Your task to perform on an android device: change the clock display to show seconds Image 0: 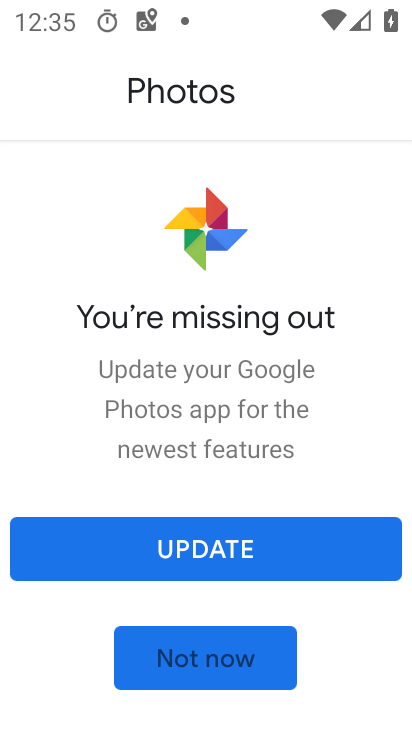
Step 0: press home button
Your task to perform on an android device: change the clock display to show seconds Image 1: 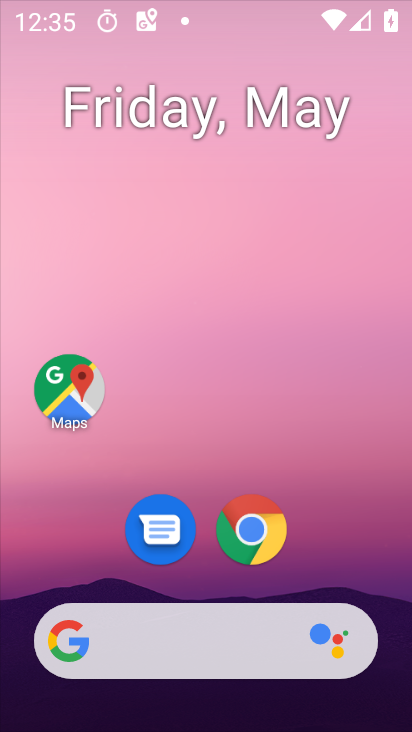
Step 1: drag from (234, 432) to (266, 139)
Your task to perform on an android device: change the clock display to show seconds Image 2: 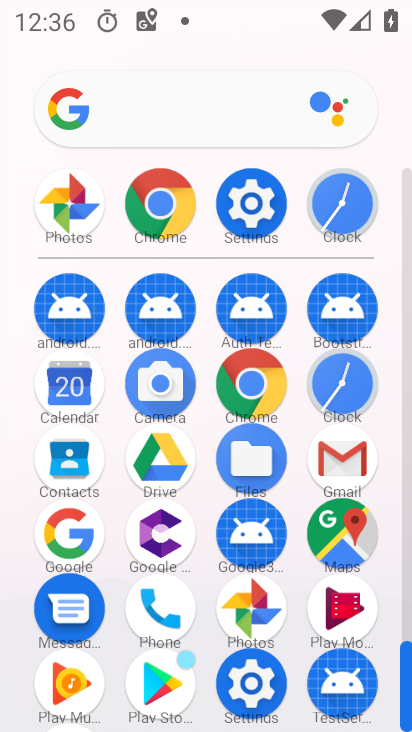
Step 2: click (338, 400)
Your task to perform on an android device: change the clock display to show seconds Image 3: 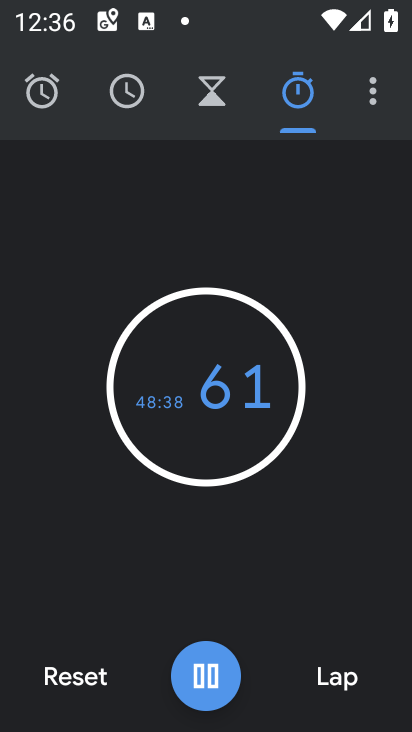
Step 3: click (373, 111)
Your task to perform on an android device: change the clock display to show seconds Image 4: 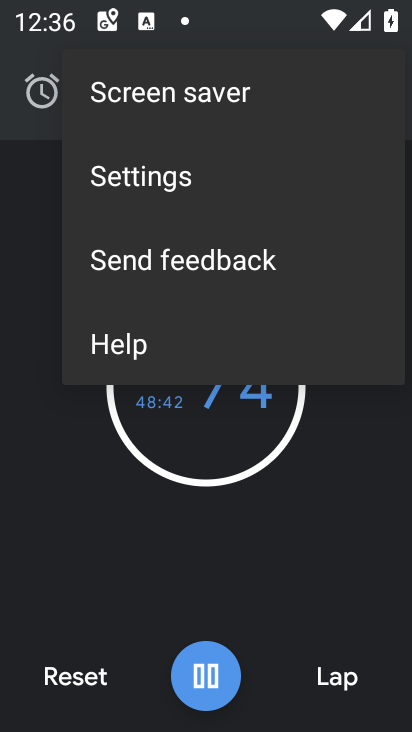
Step 4: click (180, 191)
Your task to perform on an android device: change the clock display to show seconds Image 5: 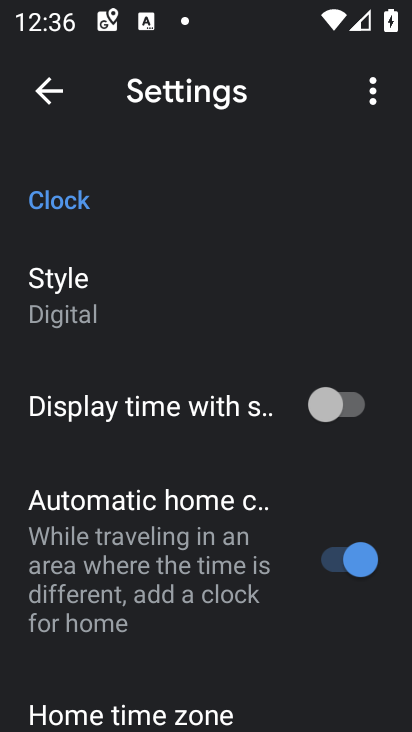
Step 5: click (217, 408)
Your task to perform on an android device: change the clock display to show seconds Image 6: 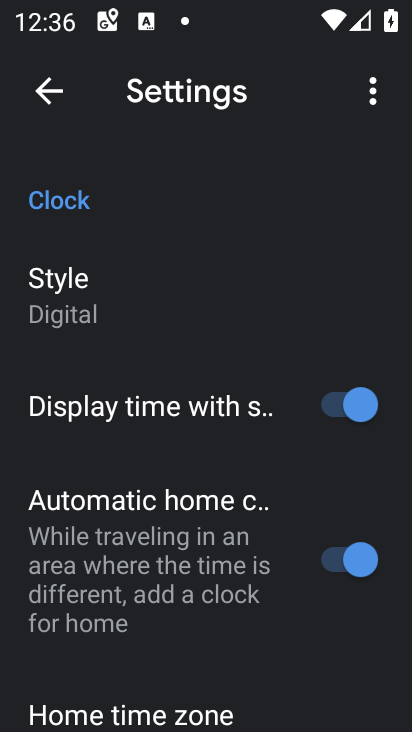
Step 6: task complete